Your task to perform on an android device: Go to Reddit.com Image 0: 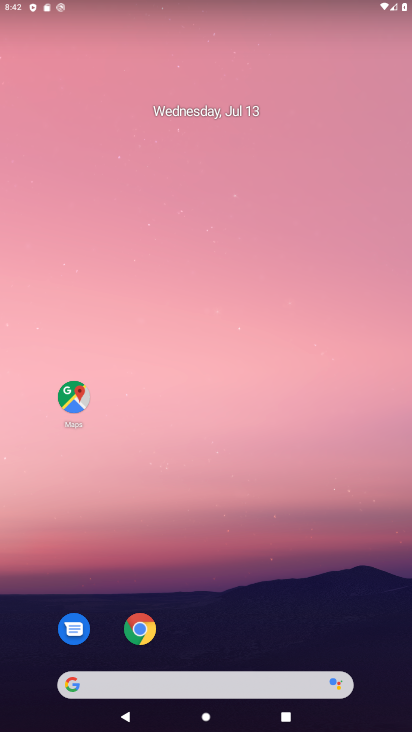
Step 0: drag from (207, 637) to (221, 77)
Your task to perform on an android device: Go to Reddit.com Image 1: 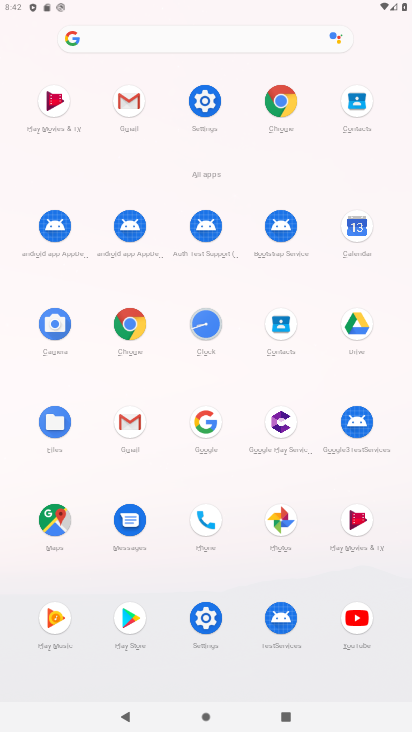
Step 1: click (117, 326)
Your task to perform on an android device: Go to Reddit.com Image 2: 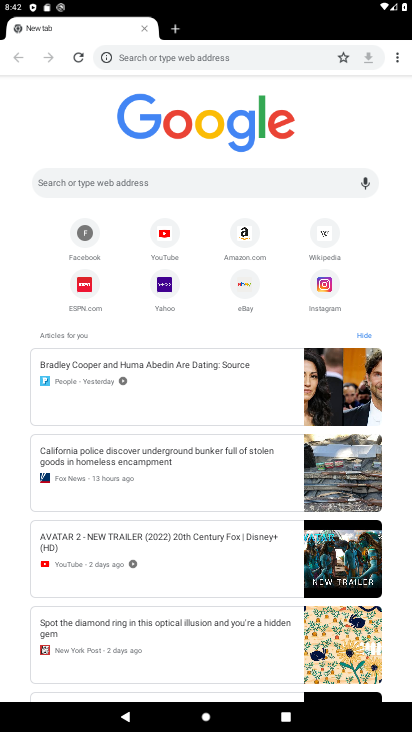
Step 2: click (141, 58)
Your task to perform on an android device: Go to Reddit.com Image 3: 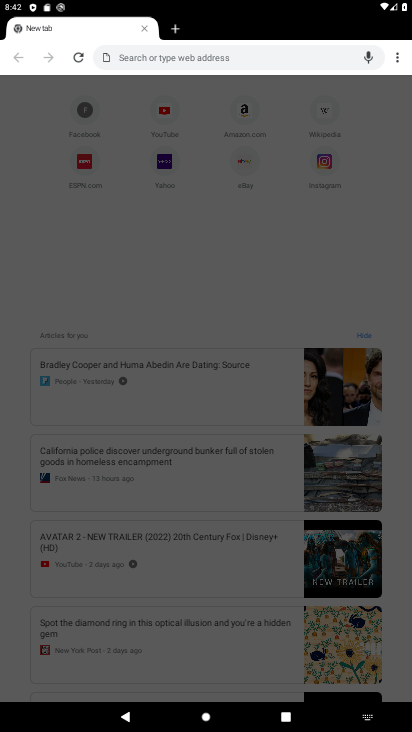
Step 3: type " Reddit.com"
Your task to perform on an android device: Go to Reddit.com Image 4: 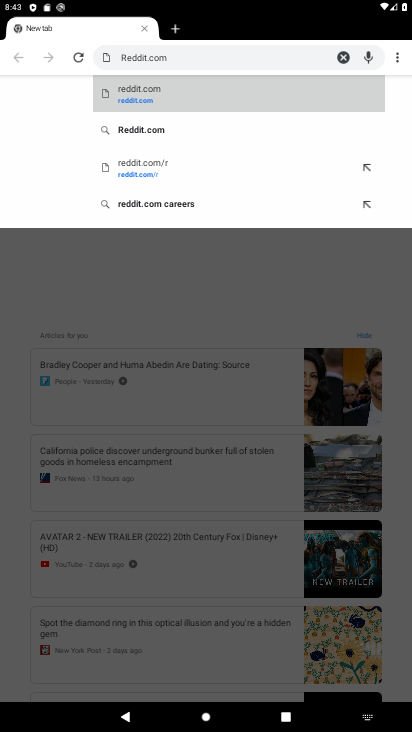
Step 4: click (138, 101)
Your task to perform on an android device: Go to Reddit.com Image 5: 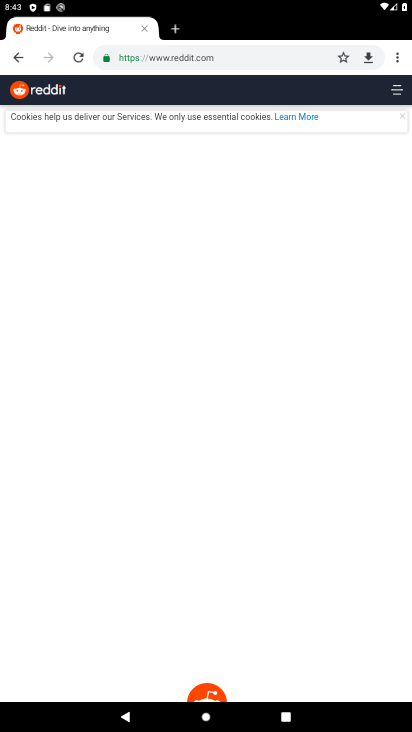
Step 5: task complete